Your task to perform on an android device: Open Google Chrome and open the bookmarks view Image 0: 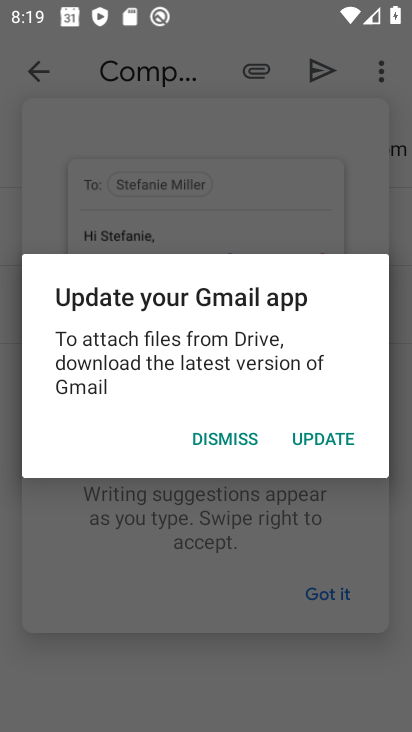
Step 0: press home button
Your task to perform on an android device: Open Google Chrome and open the bookmarks view Image 1: 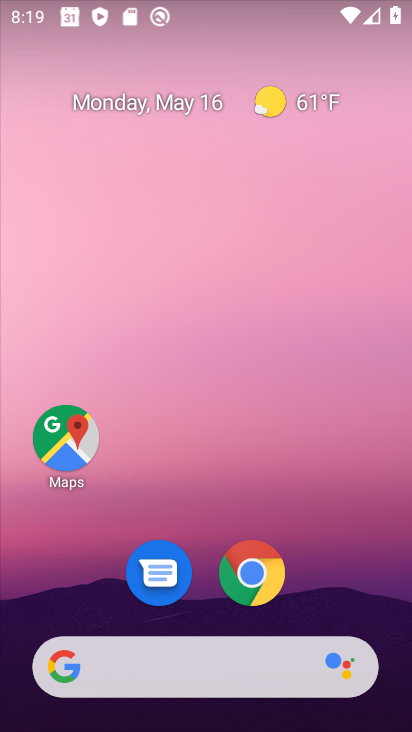
Step 1: click (259, 576)
Your task to perform on an android device: Open Google Chrome and open the bookmarks view Image 2: 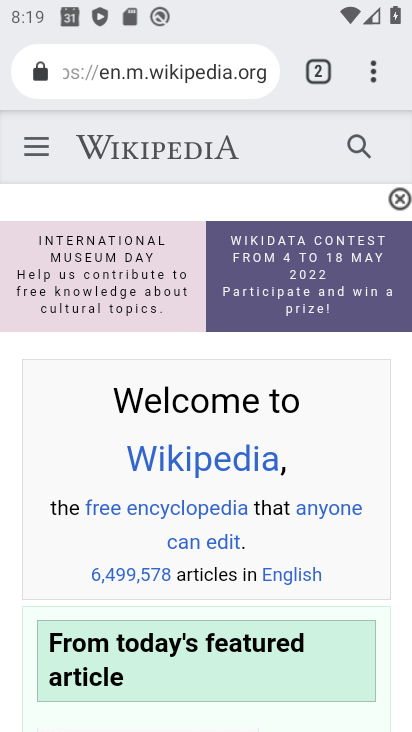
Step 2: click (372, 77)
Your task to perform on an android device: Open Google Chrome and open the bookmarks view Image 3: 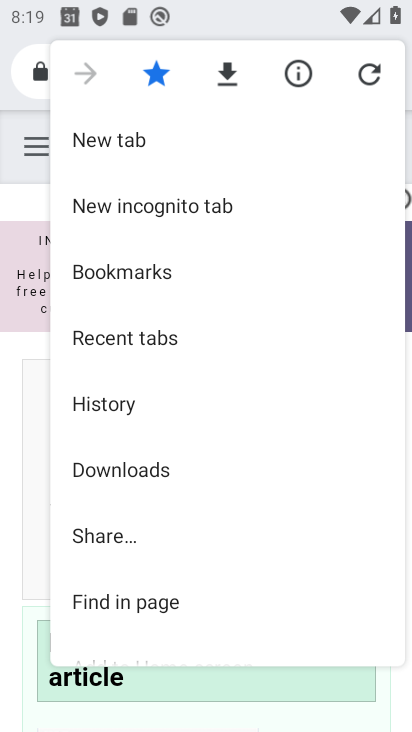
Step 3: click (147, 271)
Your task to perform on an android device: Open Google Chrome and open the bookmarks view Image 4: 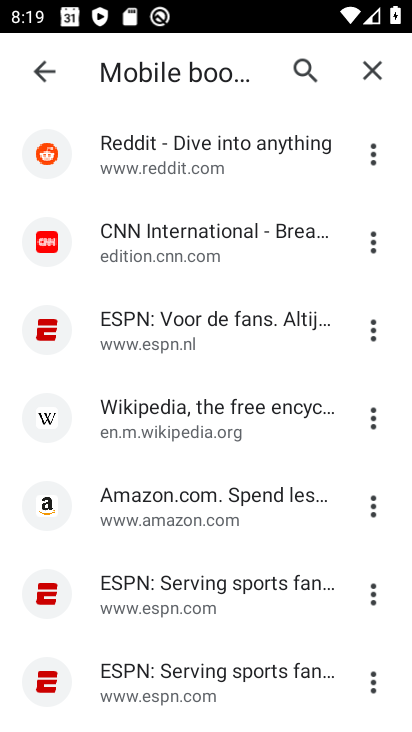
Step 4: task complete